Your task to perform on an android device: toggle translation in the chrome app Image 0: 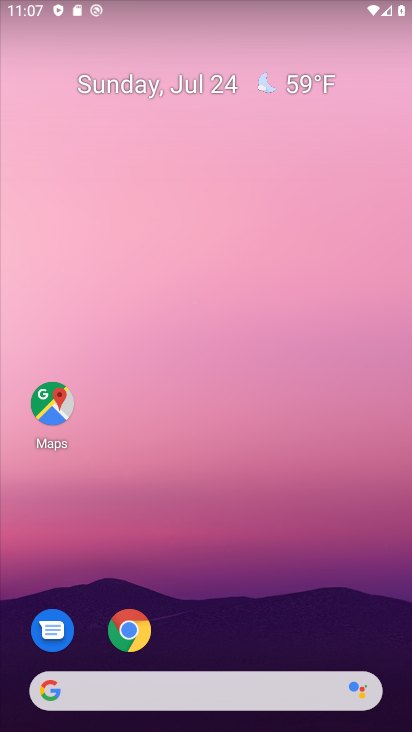
Step 0: click (121, 626)
Your task to perform on an android device: toggle translation in the chrome app Image 1: 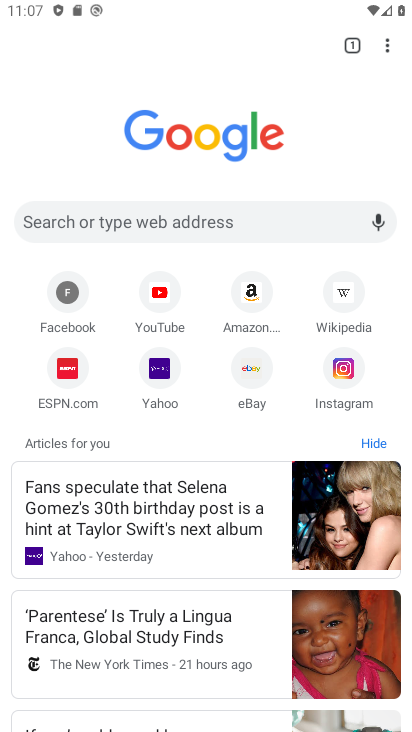
Step 1: click (387, 44)
Your task to perform on an android device: toggle translation in the chrome app Image 2: 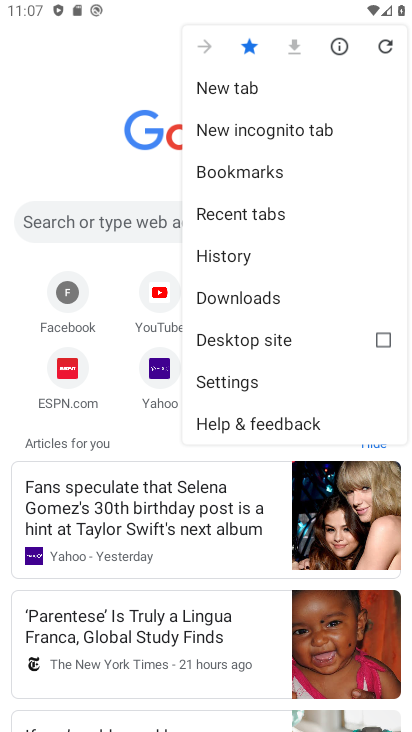
Step 2: click (270, 383)
Your task to perform on an android device: toggle translation in the chrome app Image 3: 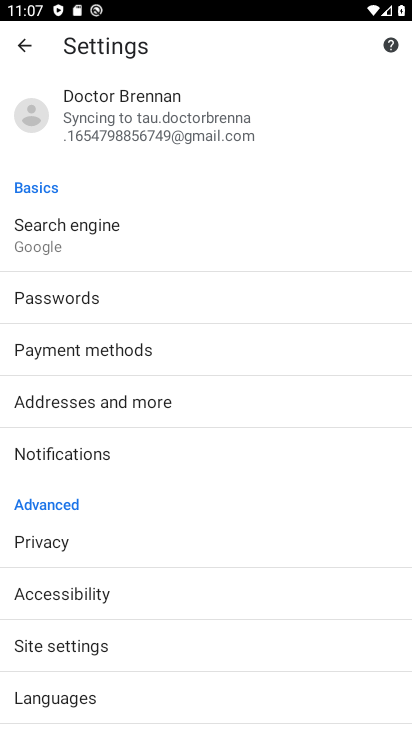
Step 3: click (117, 693)
Your task to perform on an android device: toggle translation in the chrome app Image 4: 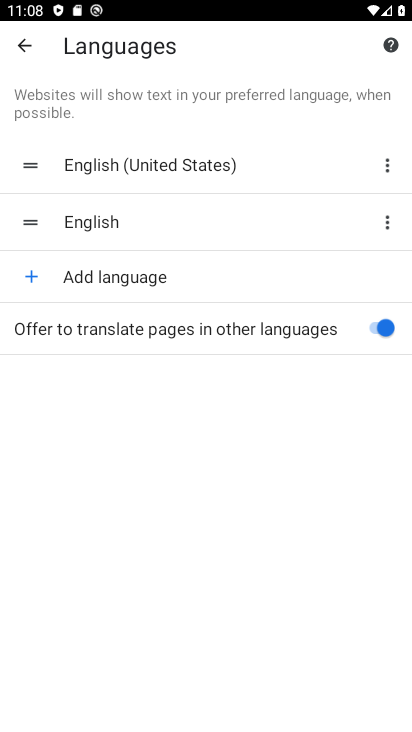
Step 4: click (377, 324)
Your task to perform on an android device: toggle translation in the chrome app Image 5: 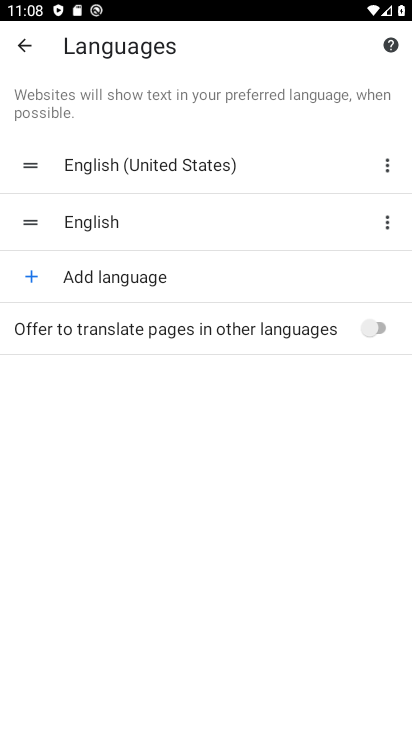
Step 5: task complete